Your task to perform on an android device: move a message to another label in the gmail app Image 0: 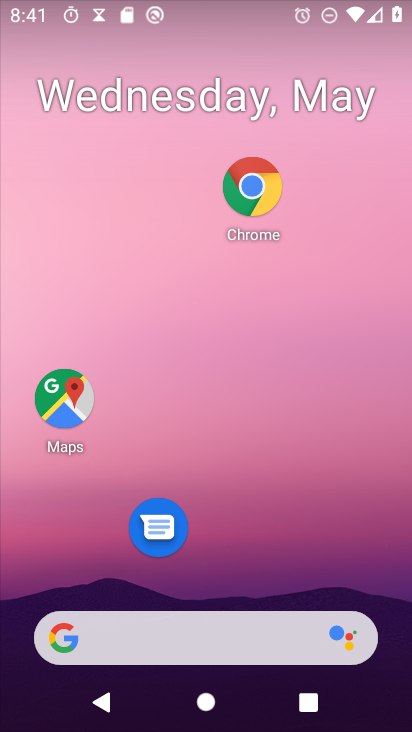
Step 0: drag from (324, 508) to (327, 79)
Your task to perform on an android device: move a message to another label in the gmail app Image 1: 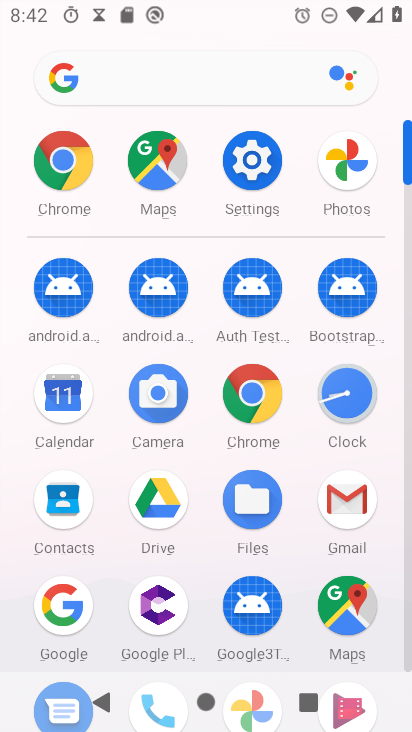
Step 1: click (344, 505)
Your task to perform on an android device: move a message to another label in the gmail app Image 2: 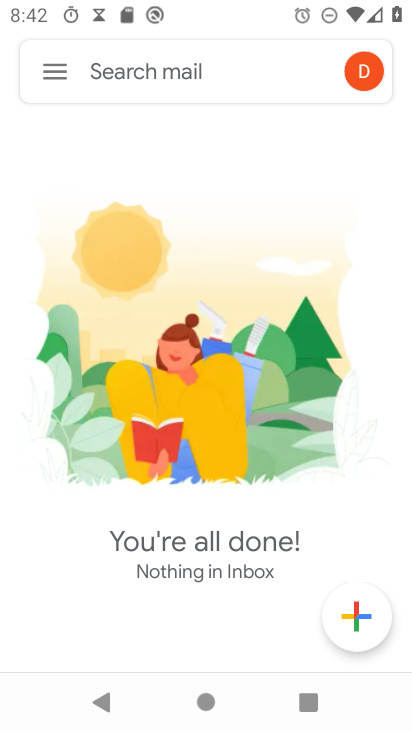
Step 2: task complete